Your task to perform on an android device: turn smart compose on in the gmail app Image 0: 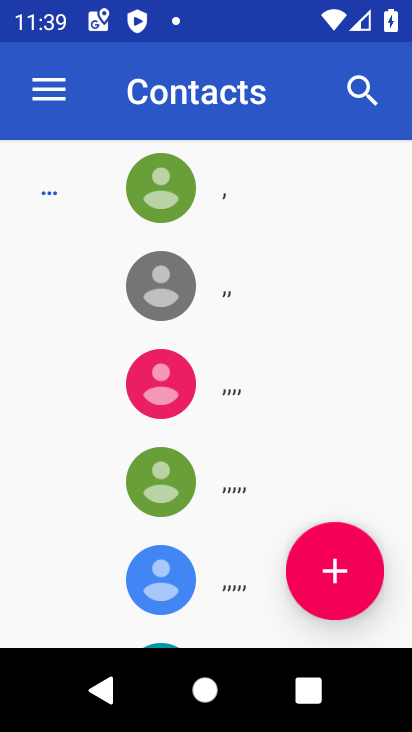
Step 0: press home button
Your task to perform on an android device: turn smart compose on in the gmail app Image 1: 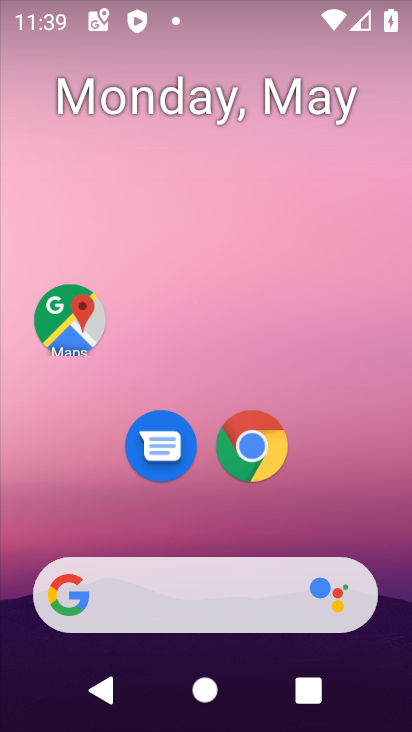
Step 1: drag from (345, 542) to (309, 144)
Your task to perform on an android device: turn smart compose on in the gmail app Image 2: 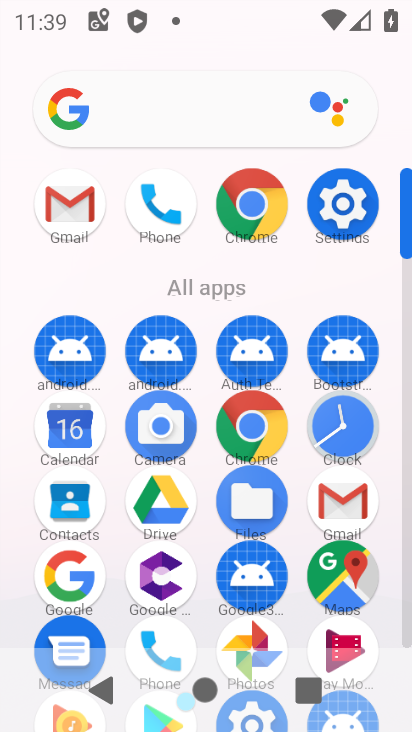
Step 2: click (337, 500)
Your task to perform on an android device: turn smart compose on in the gmail app Image 3: 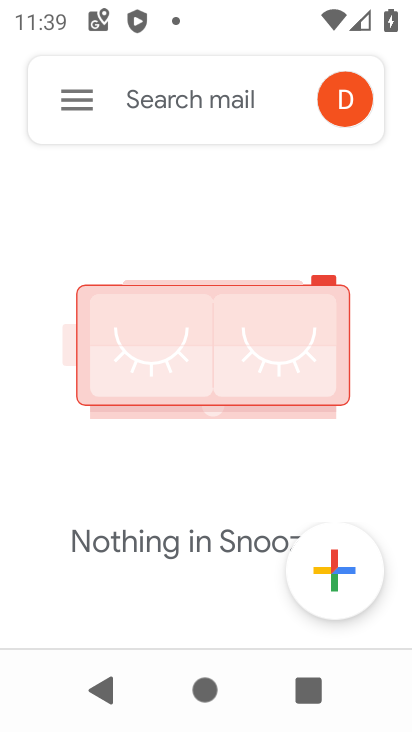
Step 3: click (68, 94)
Your task to perform on an android device: turn smart compose on in the gmail app Image 4: 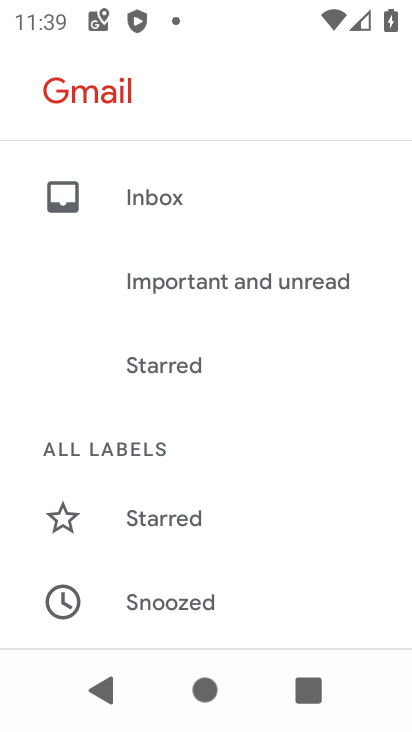
Step 4: drag from (160, 551) to (194, 121)
Your task to perform on an android device: turn smart compose on in the gmail app Image 5: 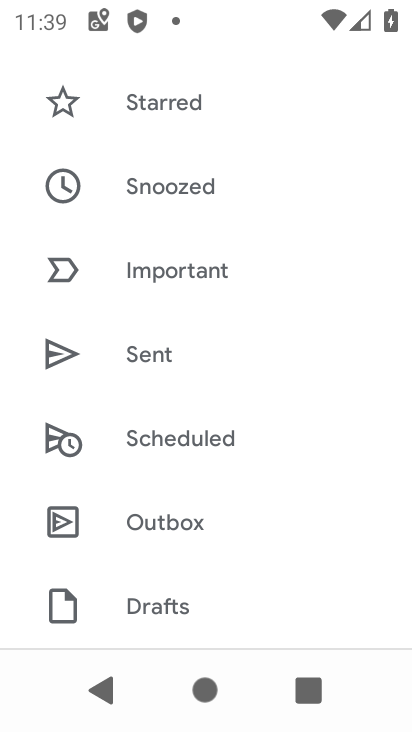
Step 5: drag from (205, 579) to (221, 185)
Your task to perform on an android device: turn smart compose on in the gmail app Image 6: 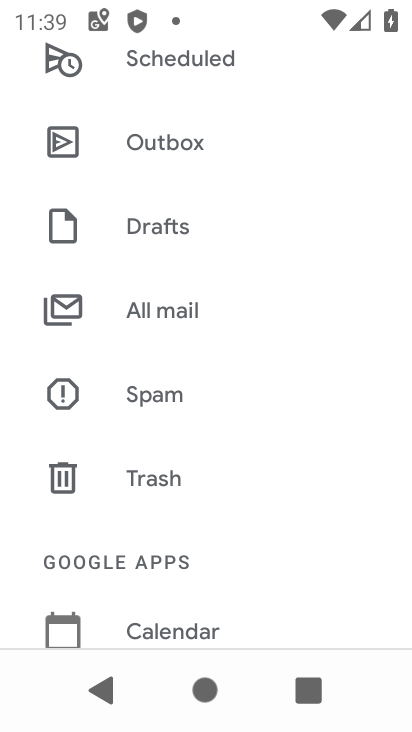
Step 6: drag from (161, 603) to (240, 223)
Your task to perform on an android device: turn smart compose on in the gmail app Image 7: 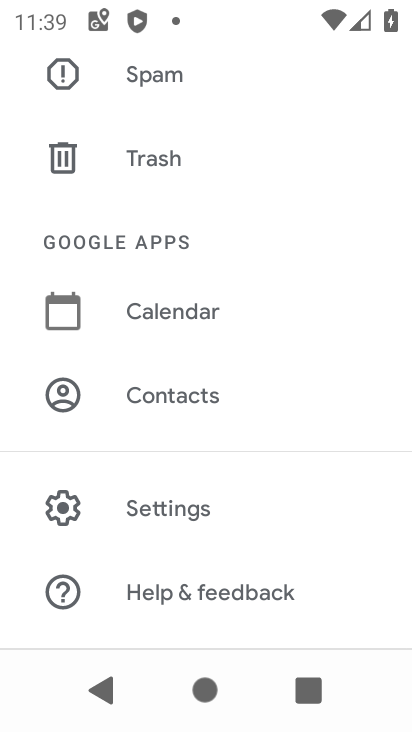
Step 7: click (156, 508)
Your task to perform on an android device: turn smart compose on in the gmail app Image 8: 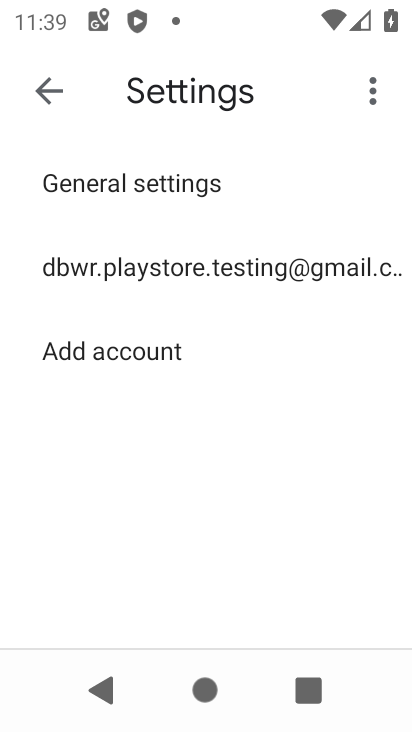
Step 8: click (188, 272)
Your task to perform on an android device: turn smart compose on in the gmail app Image 9: 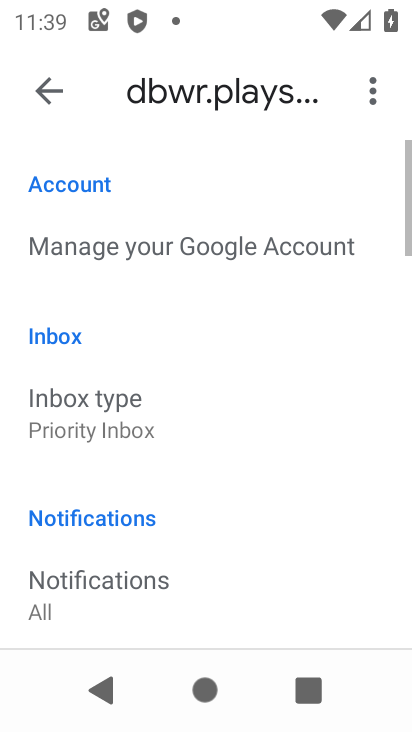
Step 9: task complete